Your task to perform on an android device: Go to accessibility settings Image 0: 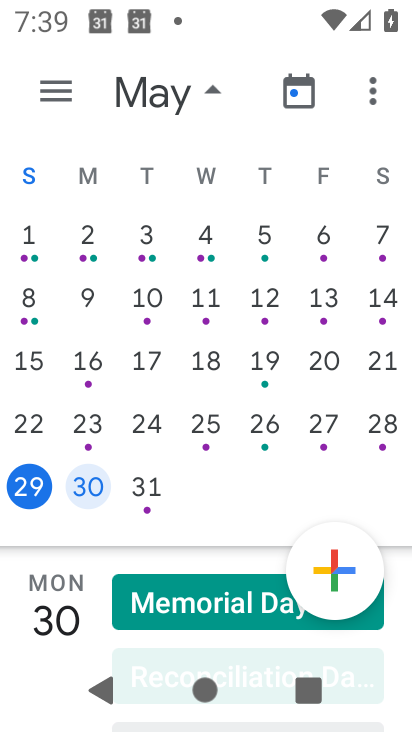
Step 0: press home button
Your task to perform on an android device: Go to accessibility settings Image 1: 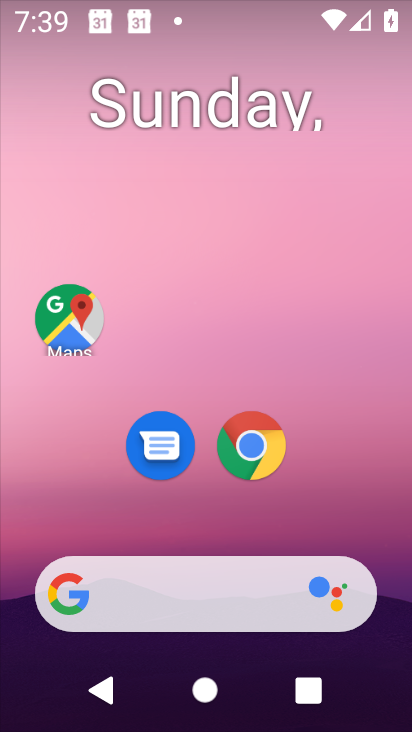
Step 1: drag from (29, 572) to (241, 170)
Your task to perform on an android device: Go to accessibility settings Image 2: 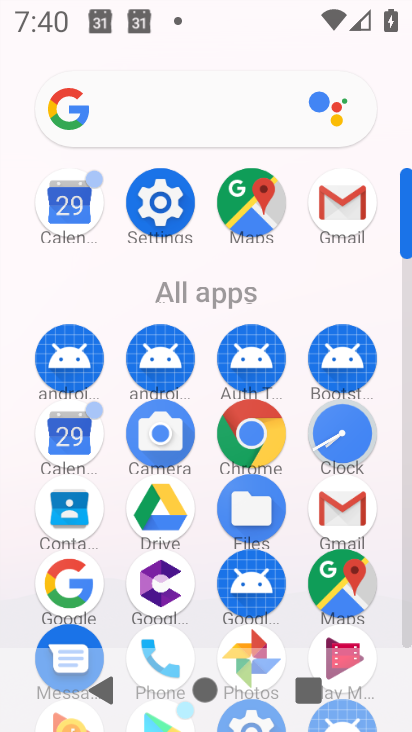
Step 2: click (140, 206)
Your task to perform on an android device: Go to accessibility settings Image 3: 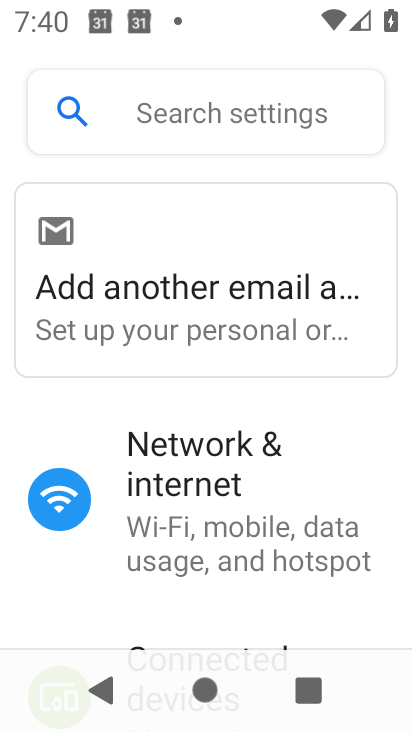
Step 3: drag from (9, 568) to (227, 189)
Your task to perform on an android device: Go to accessibility settings Image 4: 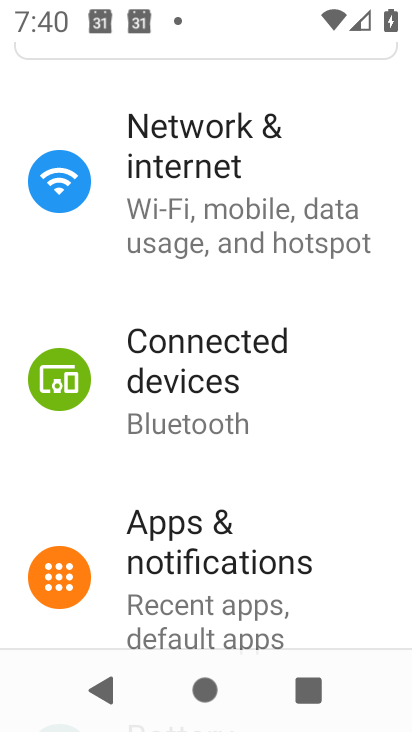
Step 4: click (149, 239)
Your task to perform on an android device: Go to accessibility settings Image 5: 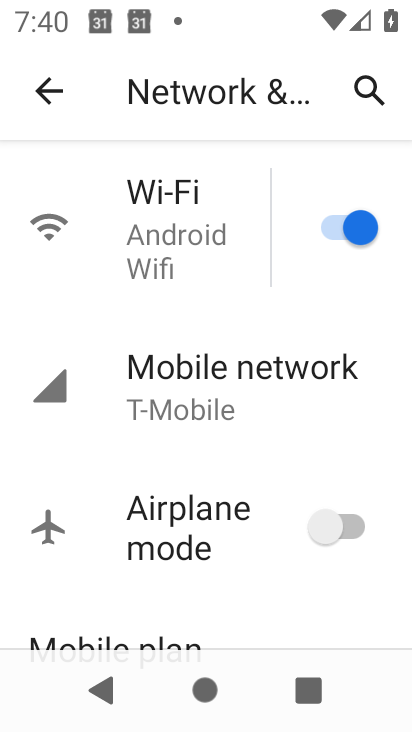
Step 5: press back button
Your task to perform on an android device: Go to accessibility settings Image 6: 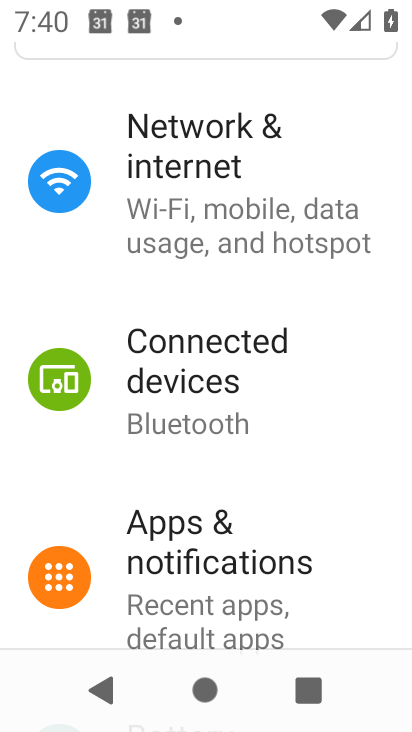
Step 6: drag from (70, 444) to (255, 147)
Your task to perform on an android device: Go to accessibility settings Image 7: 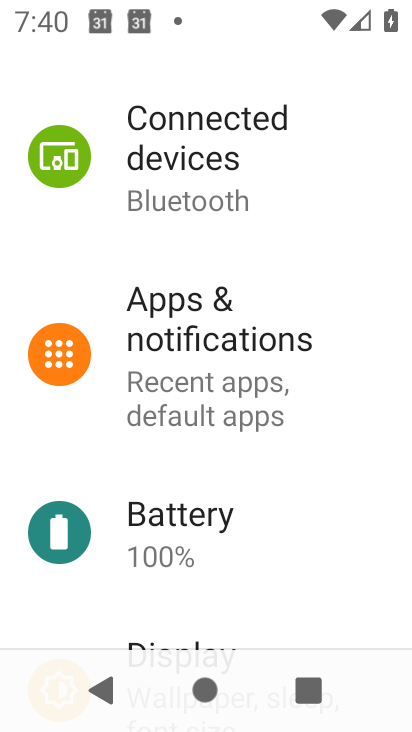
Step 7: drag from (17, 444) to (170, 145)
Your task to perform on an android device: Go to accessibility settings Image 8: 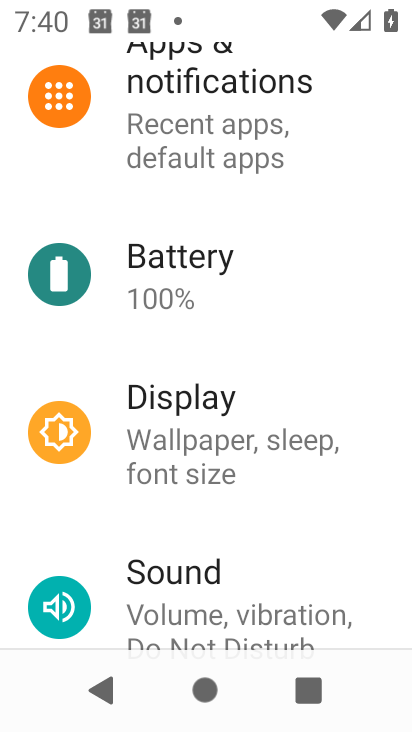
Step 8: drag from (18, 558) to (295, 147)
Your task to perform on an android device: Go to accessibility settings Image 9: 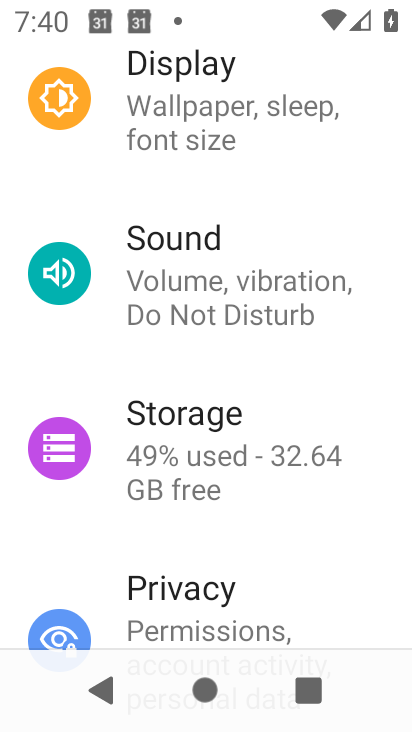
Step 9: drag from (49, 468) to (238, 200)
Your task to perform on an android device: Go to accessibility settings Image 10: 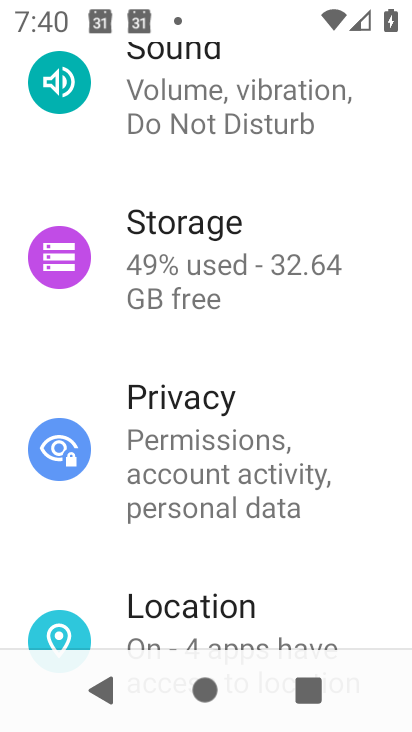
Step 10: drag from (5, 496) to (238, 33)
Your task to perform on an android device: Go to accessibility settings Image 11: 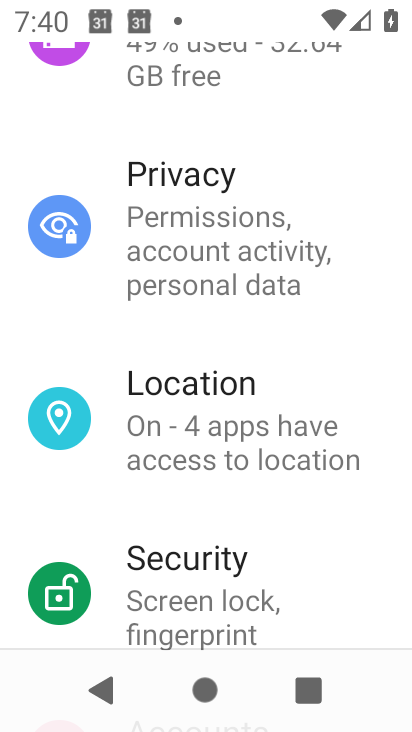
Step 11: drag from (43, 521) to (316, 187)
Your task to perform on an android device: Go to accessibility settings Image 12: 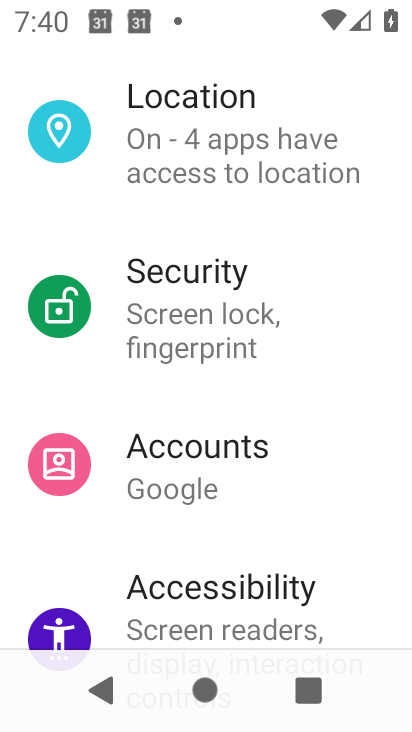
Step 12: click (184, 629)
Your task to perform on an android device: Go to accessibility settings Image 13: 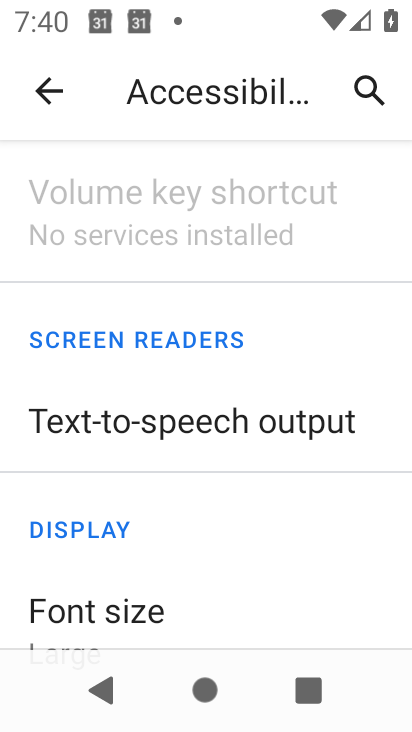
Step 13: task complete